Your task to perform on an android device: add a contact in the contacts app Image 0: 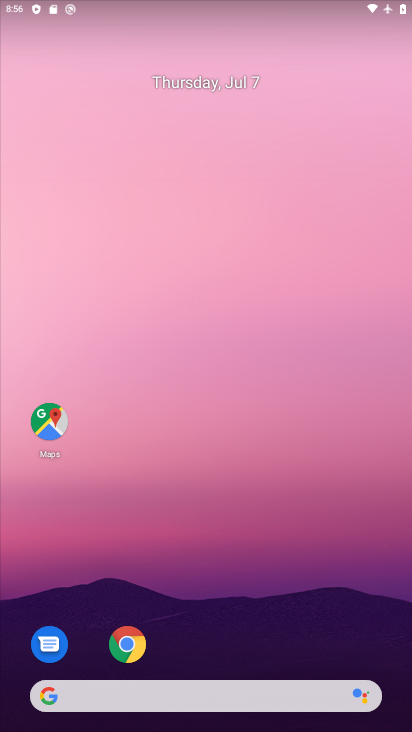
Step 0: drag from (253, 424) to (228, 192)
Your task to perform on an android device: add a contact in the contacts app Image 1: 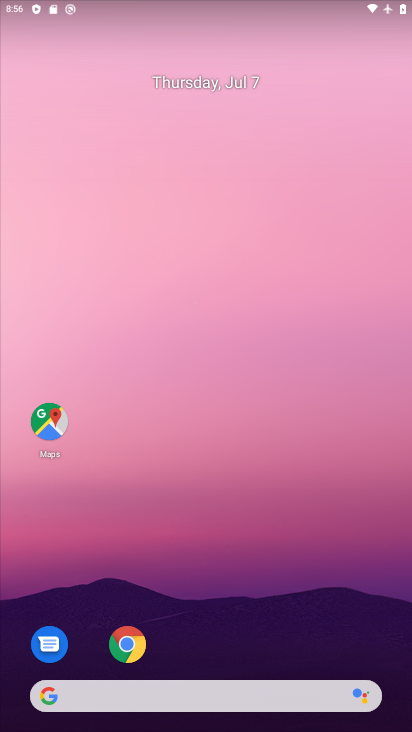
Step 1: drag from (225, 569) to (172, 186)
Your task to perform on an android device: add a contact in the contacts app Image 2: 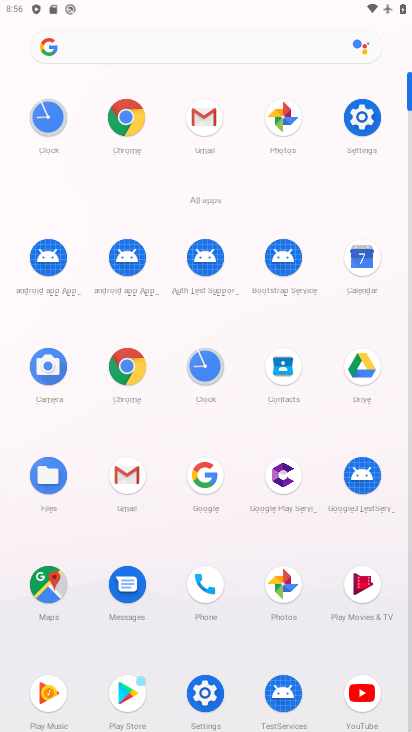
Step 2: click (279, 379)
Your task to perform on an android device: add a contact in the contacts app Image 3: 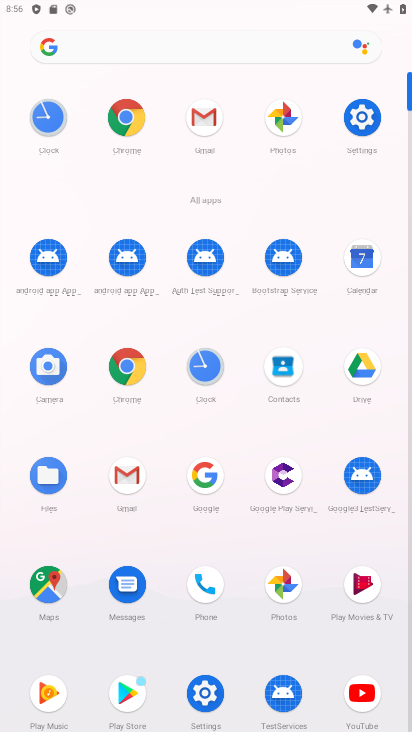
Step 3: click (282, 375)
Your task to perform on an android device: add a contact in the contacts app Image 4: 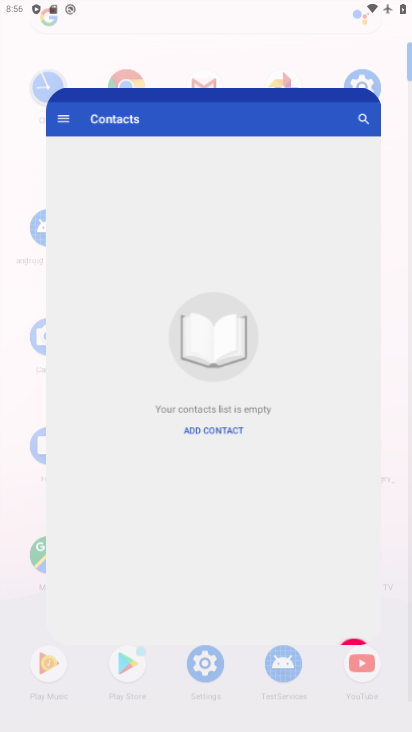
Step 4: click (285, 372)
Your task to perform on an android device: add a contact in the contacts app Image 5: 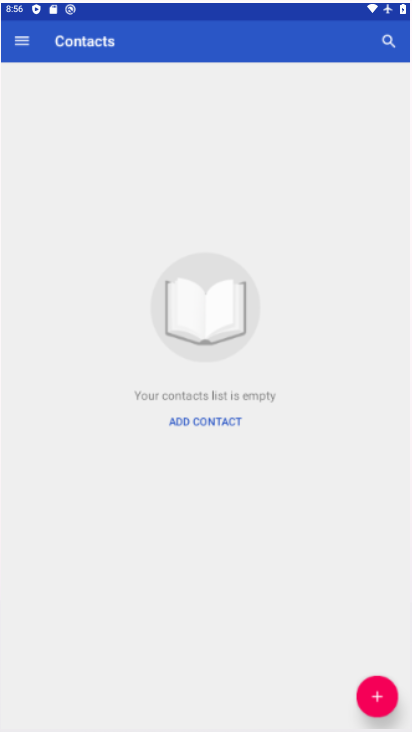
Step 5: click (289, 370)
Your task to perform on an android device: add a contact in the contacts app Image 6: 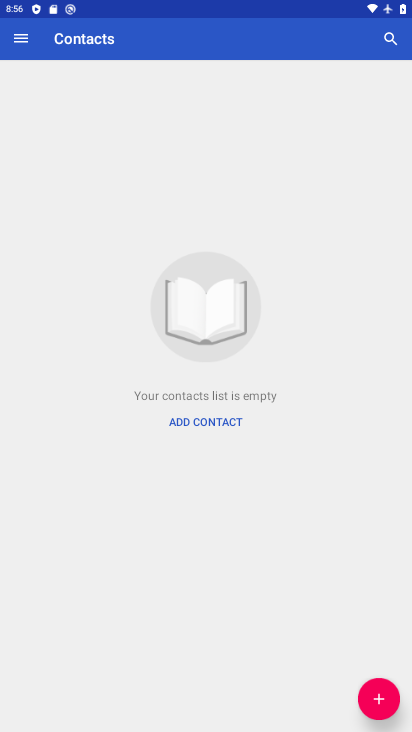
Step 6: click (375, 704)
Your task to perform on an android device: add a contact in the contacts app Image 7: 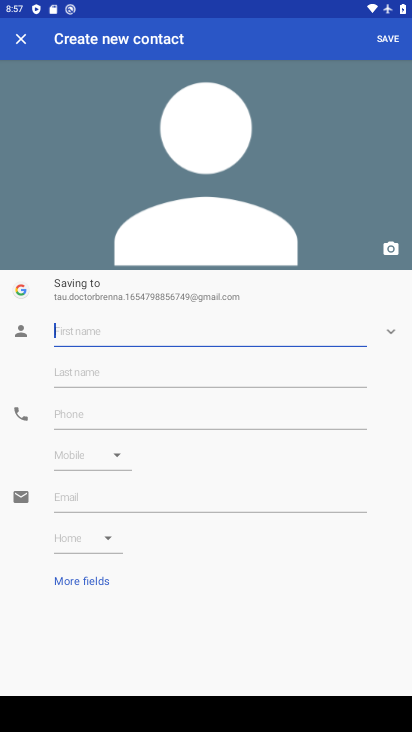
Step 7: type "vhjghjjkhk"
Your task to perform on an android device: add a contact in the contacts app Image 8: 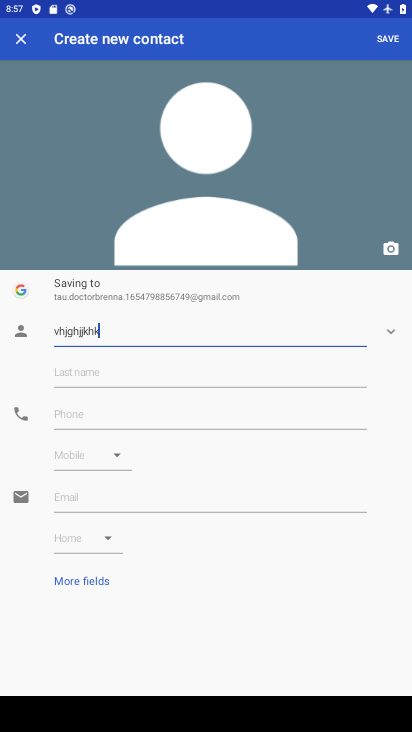
Step 8: click (71, 414)
Your task to perform on an android device: add a contact in the contacts app Image 9: 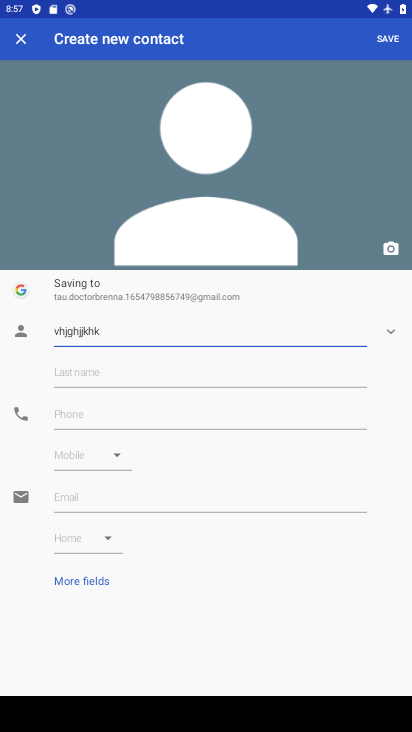
Step 9: click (71, 414)
Your task to perform on an android device: add a contact in the contacts app Image 10: 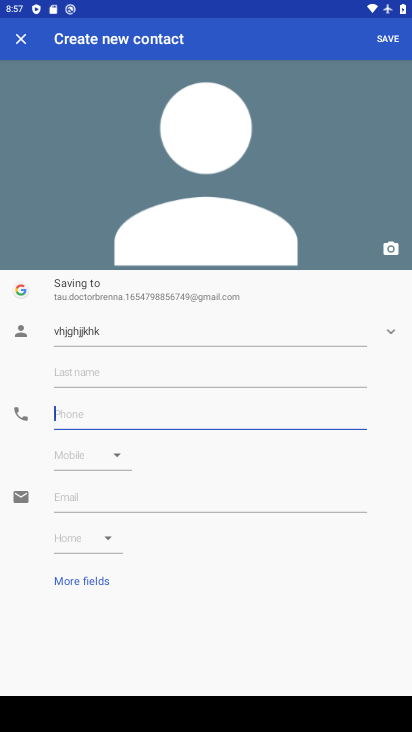
Step 10: click (71, 414)
Your task to perform on an android device: add a contact in the contacts app Image 11: 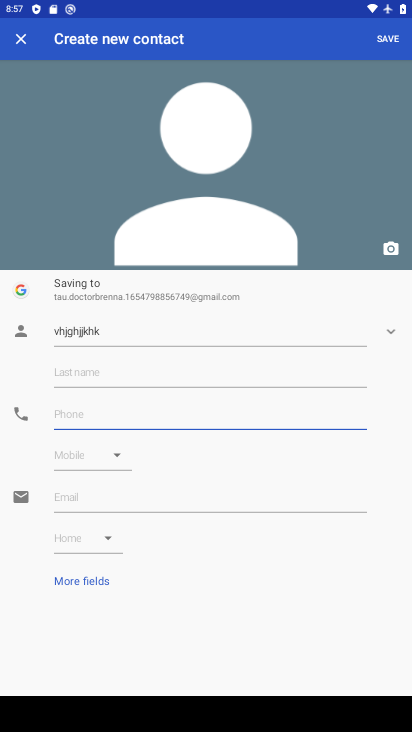
Step 11: click (71, 414)
Your task to perform on an android device: add a contact in the contacts app Image 12: 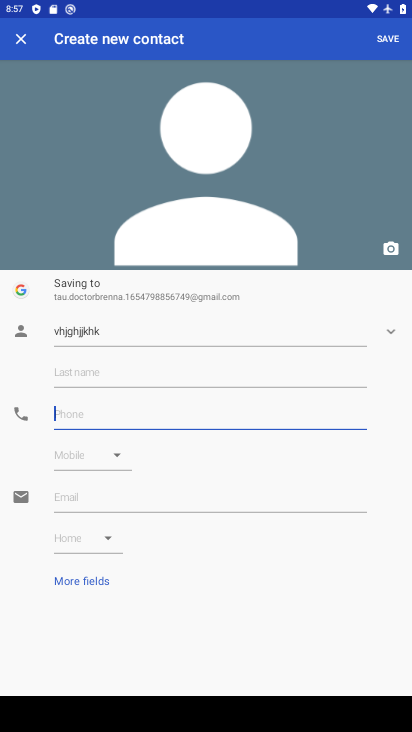
Step 12: type "76686786867"
Your task to perform on an android device: add a contact in the contacts app Image 13: 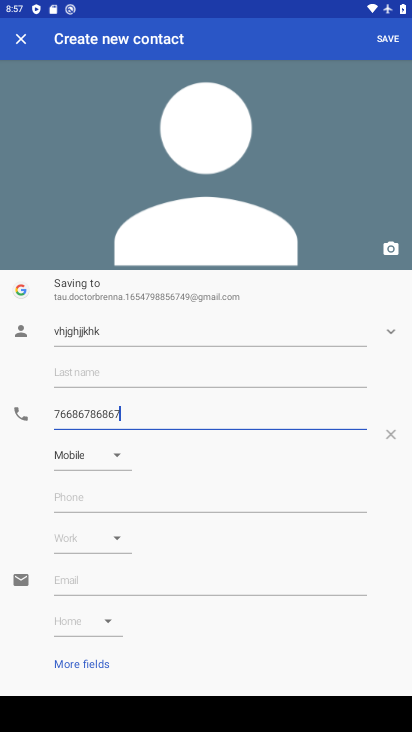
Step 13: click (389, 40)
Your task to perform on an android device: add a contact in the contacts app Image 14: 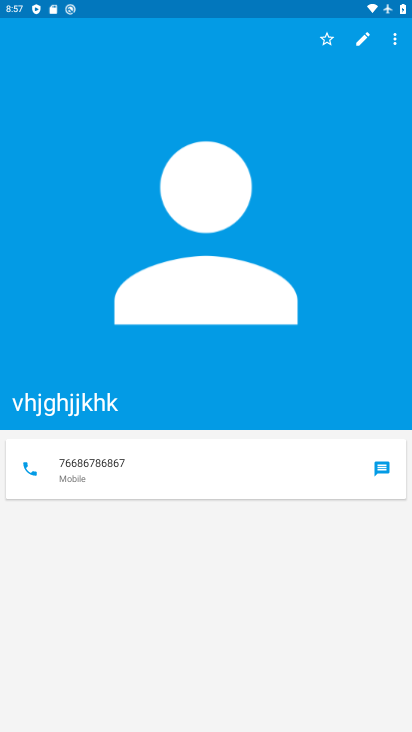
Step 14: task complete